Your task to perform on an android device: choose inbox layout in the gmail app Image 0: 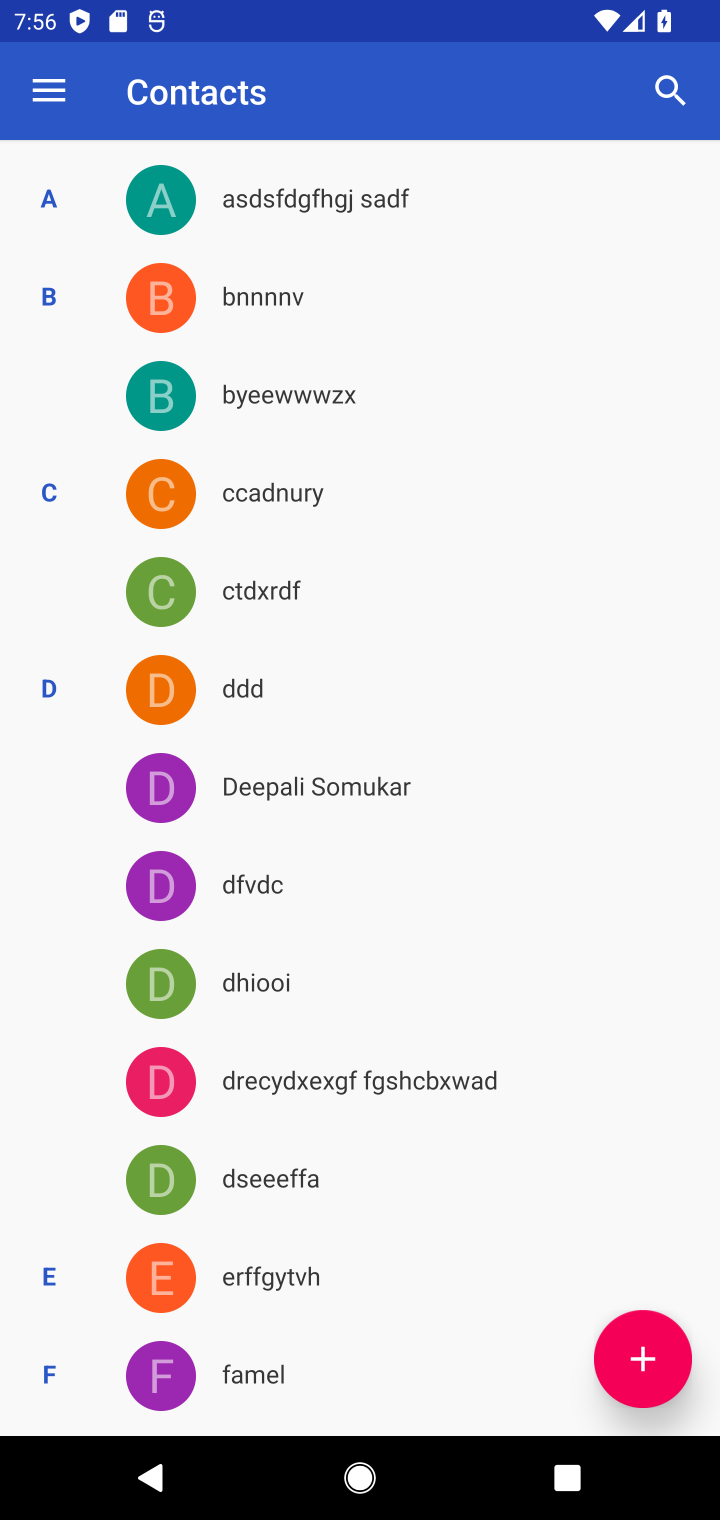
Step 0: task complete